Your task to perform on an android device: turn off airplane mode Image 0: 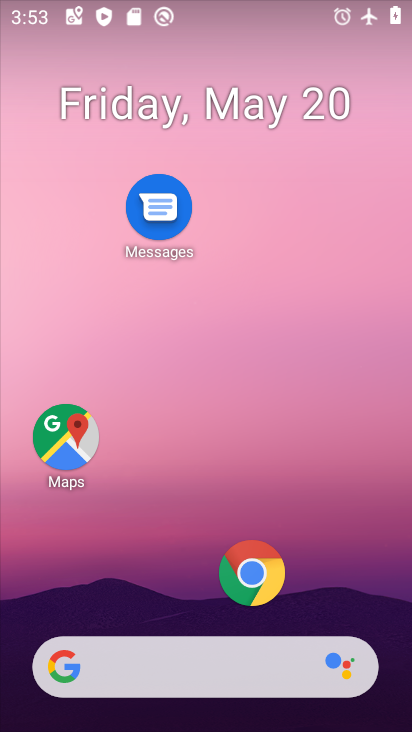
Step 0: drag from (193, 613) to (175, 66)
Your task to perform on an android device: turn off airplane mode Image 1: 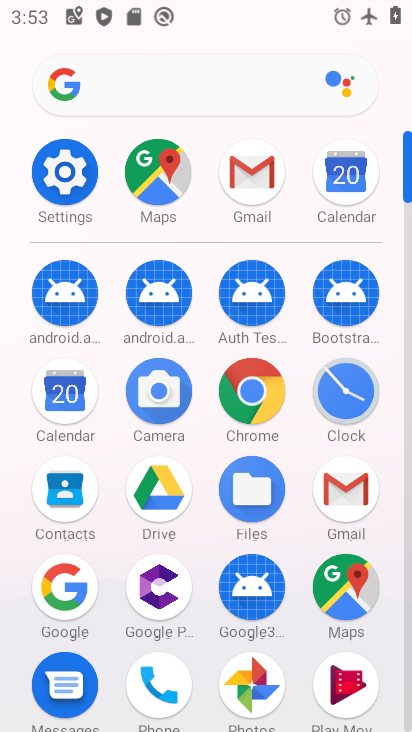
Step 1: click (77, 179)
Your task to perform on an android device: turn off airplane mode Image 2: 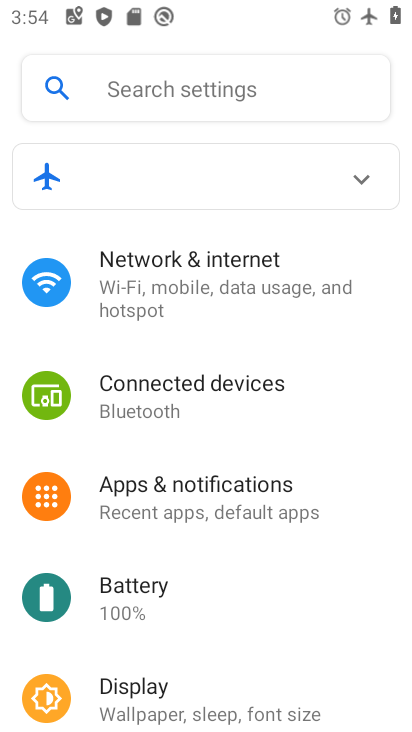
Step 2: click (170, 279)
Your task to perform on an android device: turn off airplane mode Image 3: 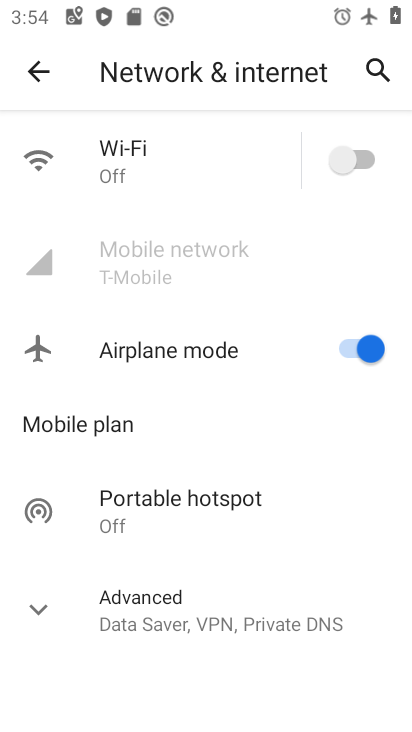
Step 3: click (356, 335)
Your task to perform on an android device: turn off airplane mode Image 4: 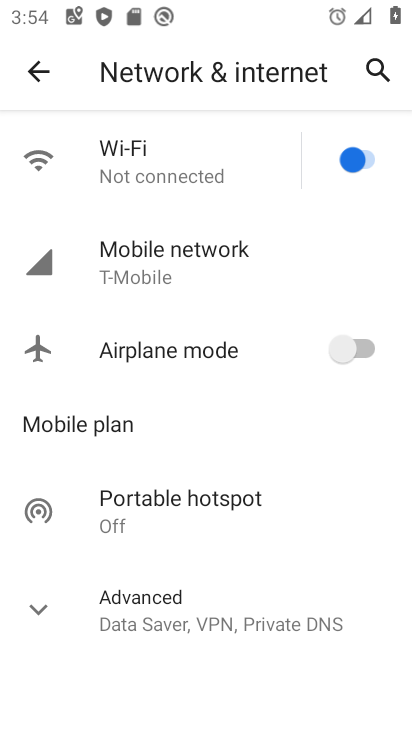
Step 4: task complete